Your task to perform on an android device: Open battery settings Image 0: 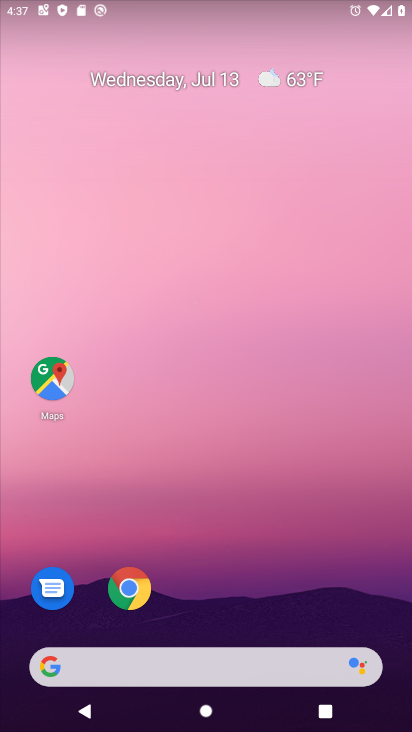
Step 0: press home button
Your task to perform on an android device: Open battery settings Image 1: 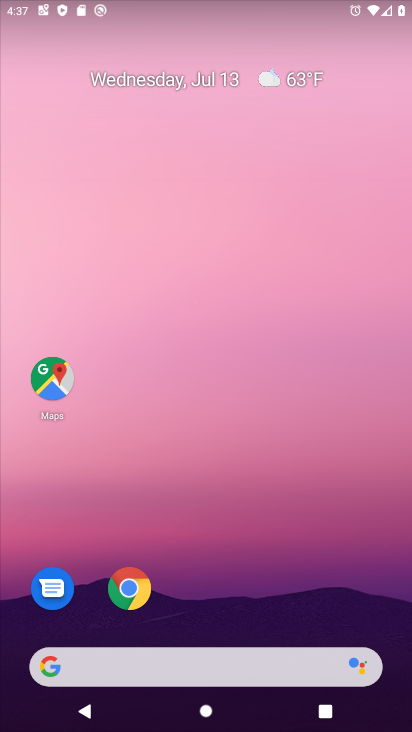
Step 1: drag from (197, 662) to (270, 157)
Your task to perform on an android device: Open battery settings Image 2: 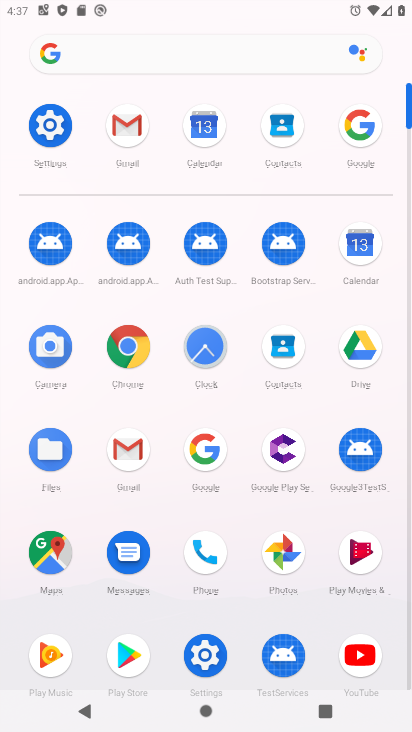
Step 2: click (205, 655)
Your task to perform on an android device: Open battery settings Image 3: 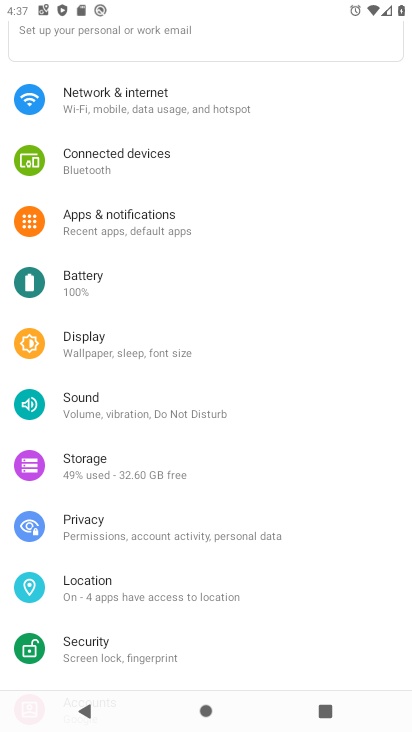
Step 3: click (81, 284)
Your task to perform on an android device: Open battery settings Image 4: 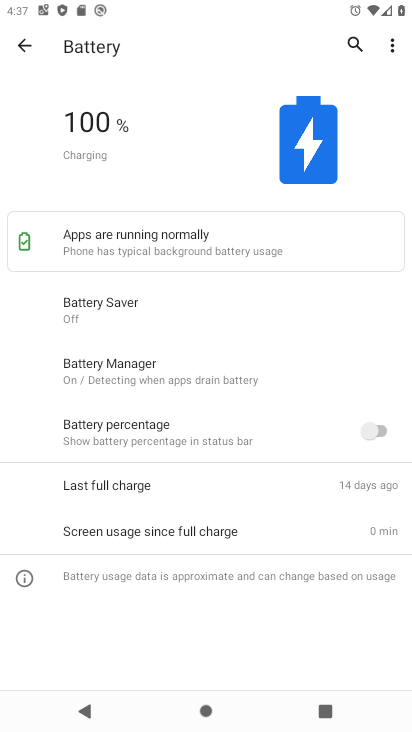
Step 4: task complete